Your task to perform on an android device: allow notifications from all sites in the chrome app Image 0: 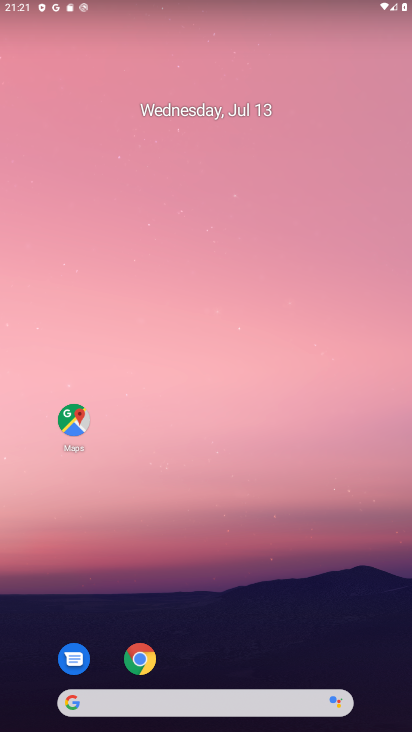
Step 0: drag from (267, 628) to (291, 251)
Your task to perform on an android device: allow notifications from all sites in the chrome app Image 1: 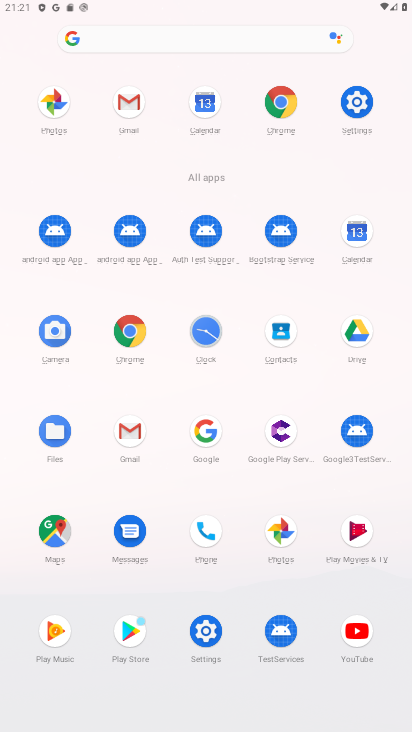
Step 1: click (280, 101)
Your task to perform on an android device: allow notifications from all sites in the chrome app Image 2: 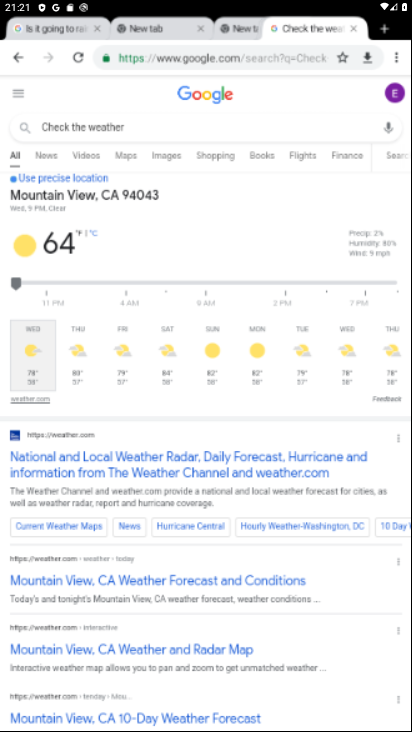
Step 2: click (401, 52)
Your task to perform on an android device: allow notifications from all sites in the chrome app Image 3: 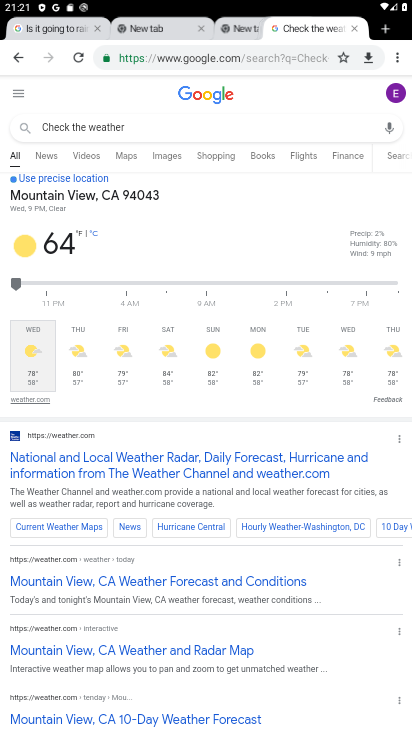
Step 3: click (396, 49)
Your task to perform on an android device: allow notifications from all sites in the chrome app Image 4: 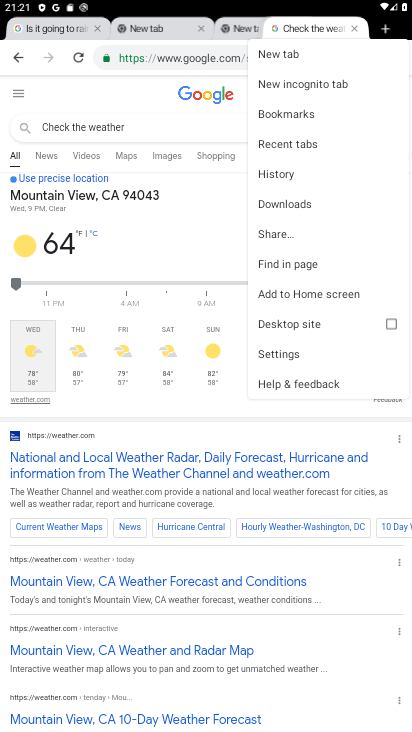
Step 4: click (289, 359)
Your task to perform on an android device: allow notifications from all sites in the chrome app Image 5: 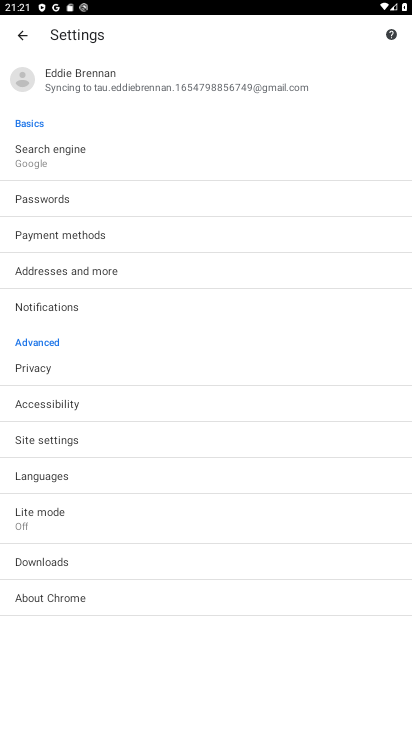
Step 5: click (87, 442)
Your task to perform on an android device: allow notifications from all sites in the chrome app Image 6: 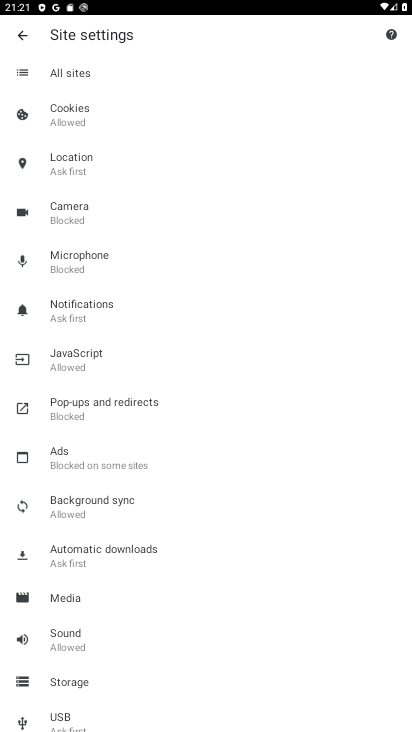
Step 6: click (73, 107)
Your task to perform on an android device: allow notifications from all sites in the chrome app Image 7: 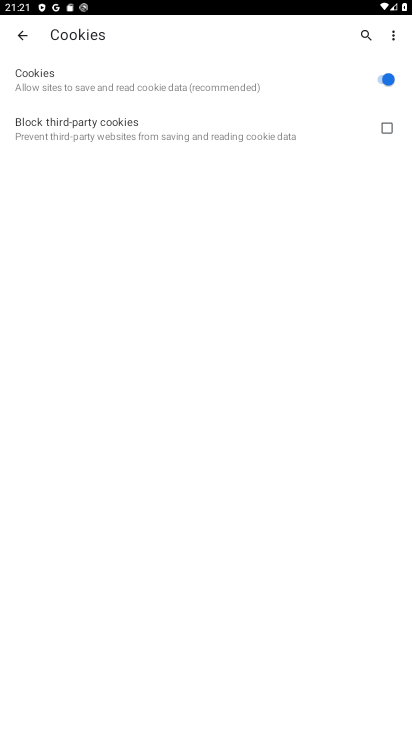
Step 7: click (7, 24)
Your task to perform on an android device: allow notifications from all sites in the chrome app Image 8: 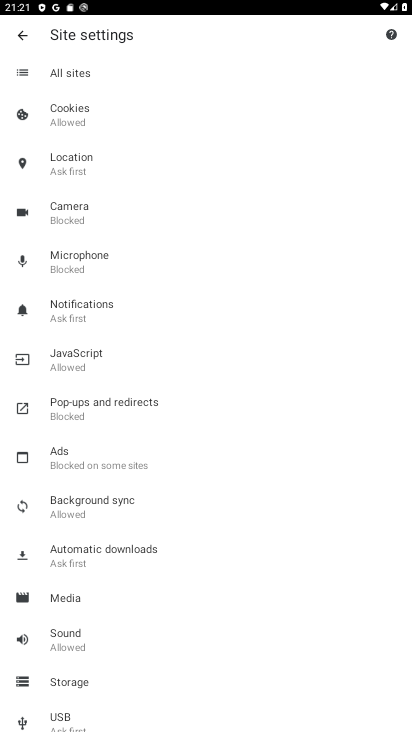
Step 8: click (90, 164)
Your task to perform on an android device: allow notifications from all sites in the chrome app Image 9: 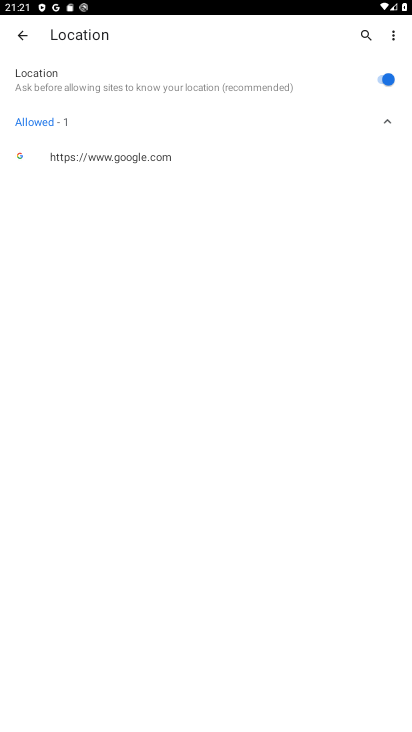
Step 9: click (21, 40)
Your task to perform on an android device: allow notifications from all sites in the chrome app Image 10: 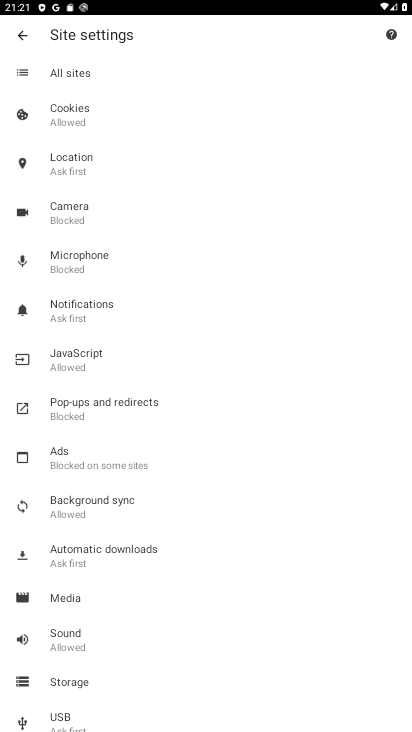
Step 10: click (116, 262)
Your task to perform on an android device: allow notifications from all sites in the chrome app Image 11: 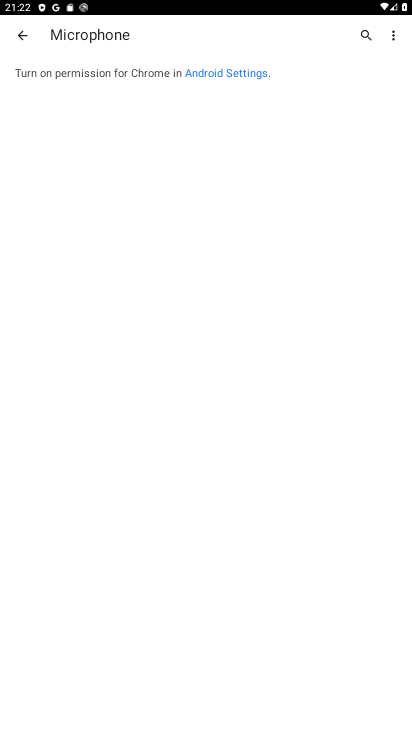
Step 11: click (18, 35)
Your task to perform on an android device: allow notifications from all sites in the chrome app Image 12: 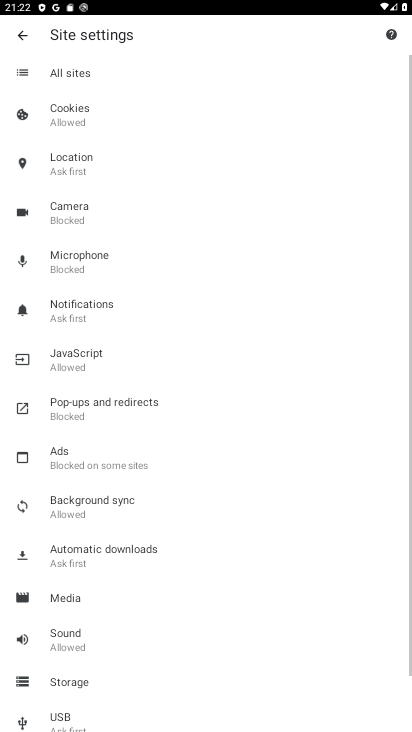
Step 12: click (96, 361)
Your task to perform on an android device: allow notifications from all sites in the chrome app Image 13: 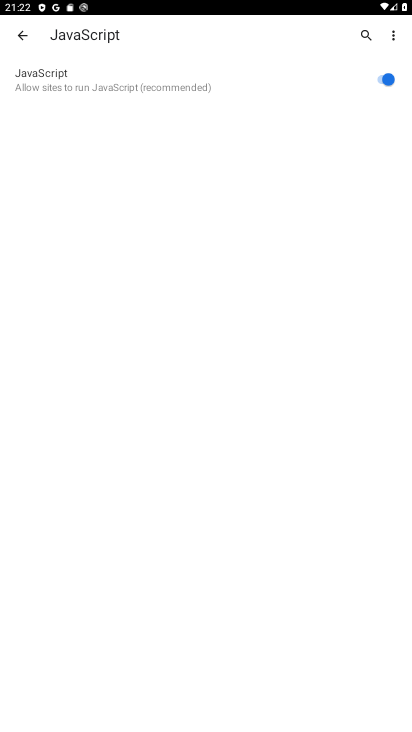
Step 13: click (15, 36)
Your task to perform on an android device: allow notifications from all sites in the chrome app Image 14: 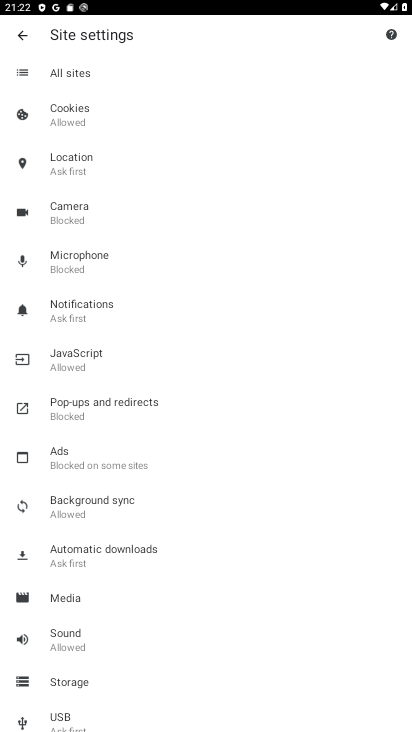
Step 14: click (107, 409)
Your task to perform on an android device: allow notifications from all sites in the chrome app Image 15: 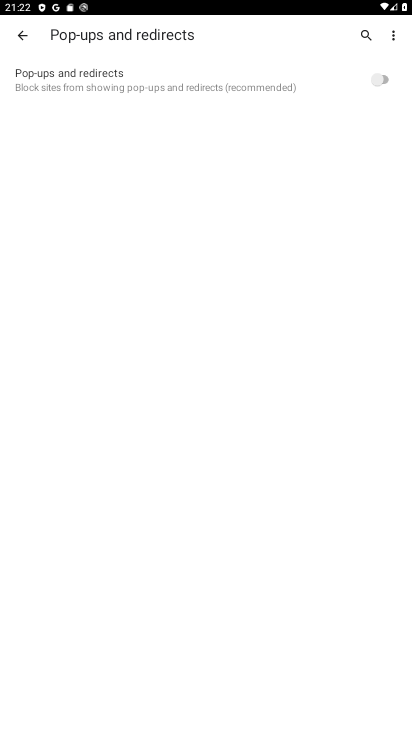
Step 15: click (386, 79)
Your task to perform on an android device: allow notifications from all sites in the chrome app Image 16: 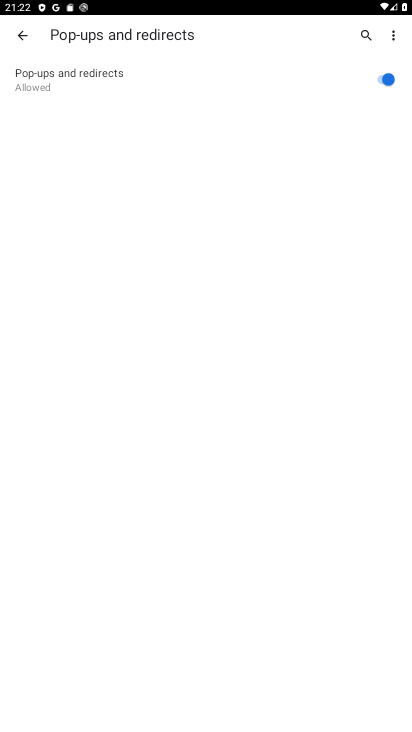
Step 16: click (31, 37)
Your task to perform on an android device: allow notifications from all sites in the chrome app Image 17: 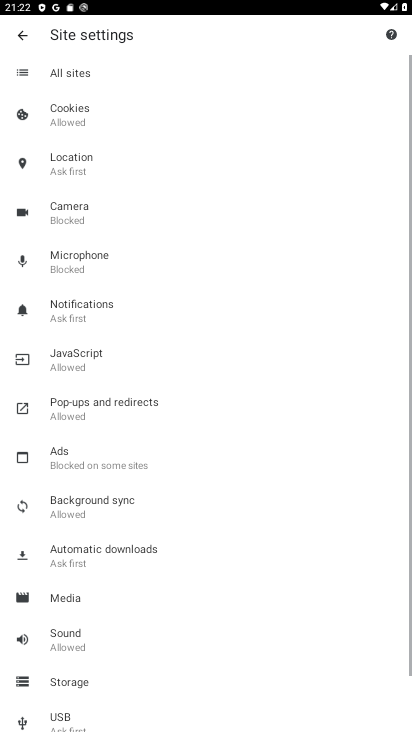
Step 17: drag from (104, 606) to (168, 182)
Your task to perform on an android device: allow notifications from all sites in the chrome app Image 18: 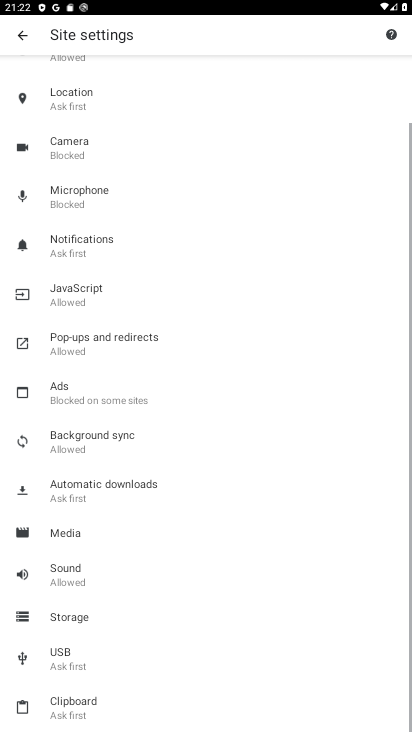
Step 18: click (105, 710)
Your task to perform on an android device: allow notifications from all sites in the chrome app Image 19: 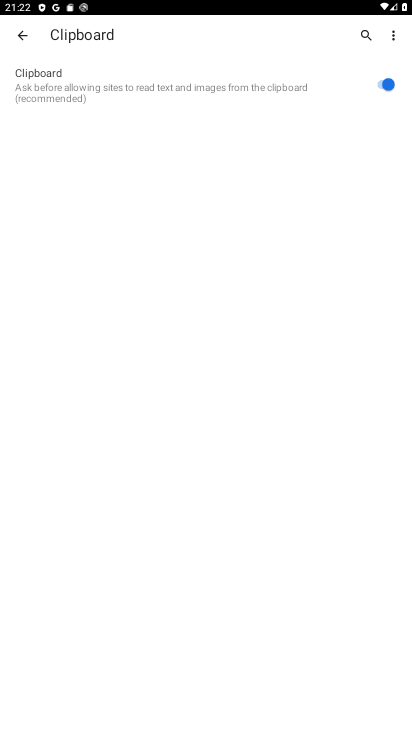
Step 19: click (14, 32)
Your task to perform on an android device: allow notifications from all sites in the chrome app Image 20: 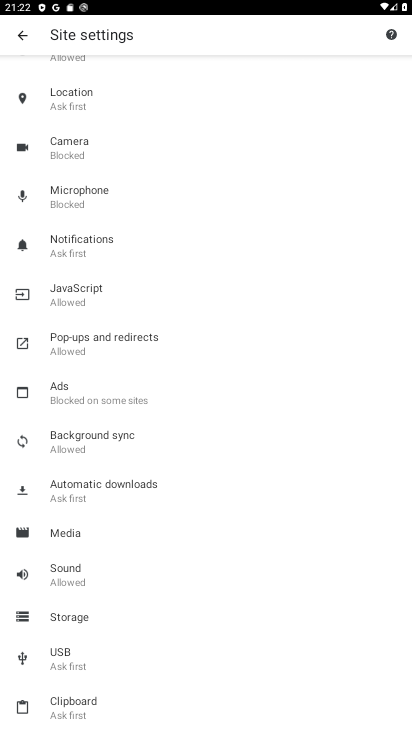
Step 20: click (70, 643)
Your task to perform on an android device: allow notifications from all sites in the chrome app Image 21: 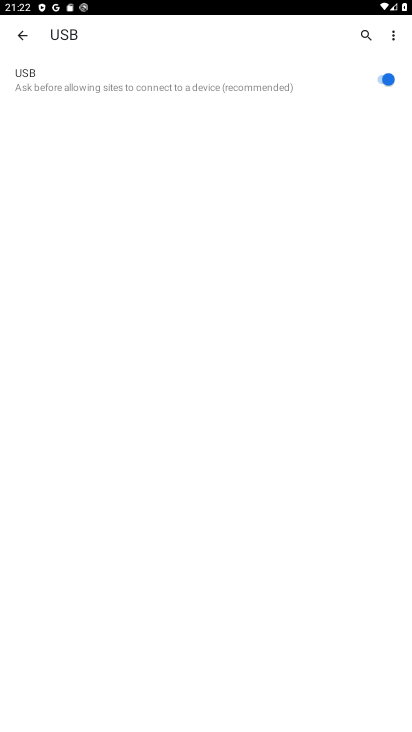
Step 21: click (33, 29)
Your task to perform on an android device: allow notifications from all sites in the chrome app Image 22: 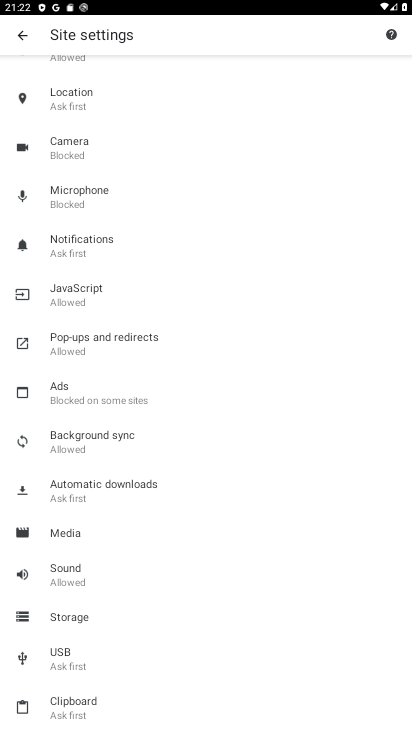
Step 22: click (88, 565)
Your task to perform on an android device: allow notifications from all sites in the chrome app Image 23: 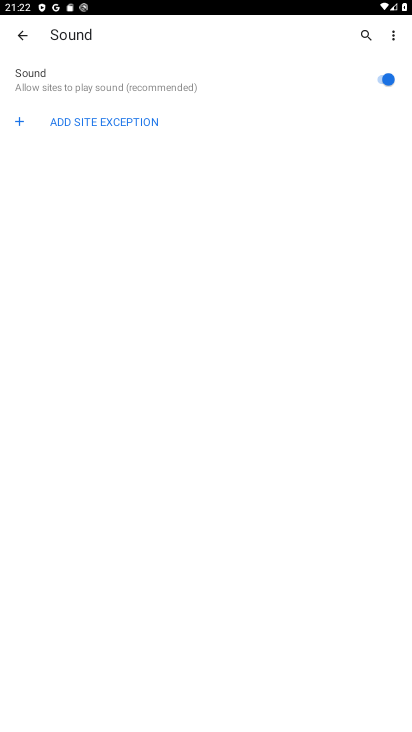
Step 23: click (19, 30)
Your task to perform on an android device: allow notifications from all sites in the chrome app Image 24: 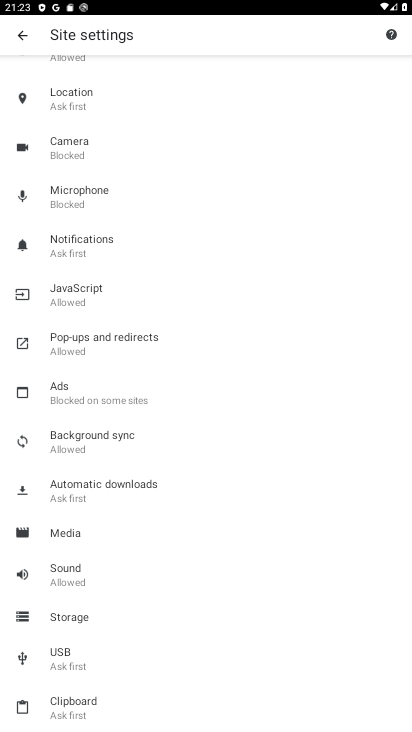
Step 24: task complete